Your task to perform on an android device: change the clock style Image 0: 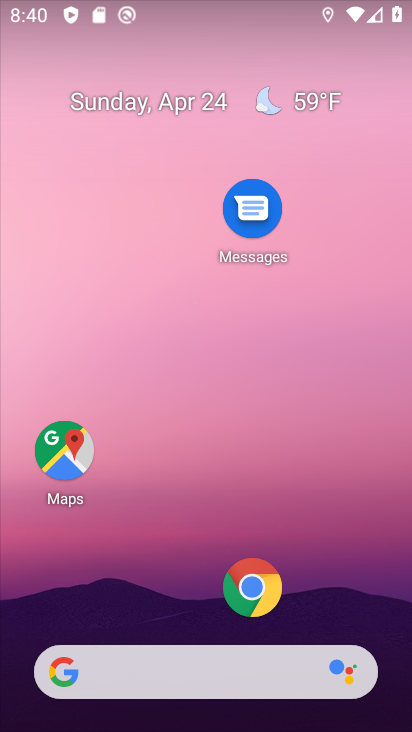
Step 0: drag from (152, 622) to (159, 69)
Your task to perform on an android device: change the clock style Image 1: 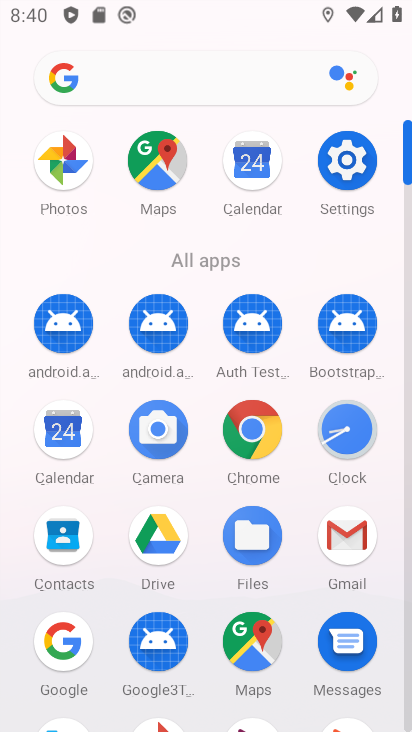
Step 1: click (337, 434)
Your task to perform on an android device: change the clock style Image 2: 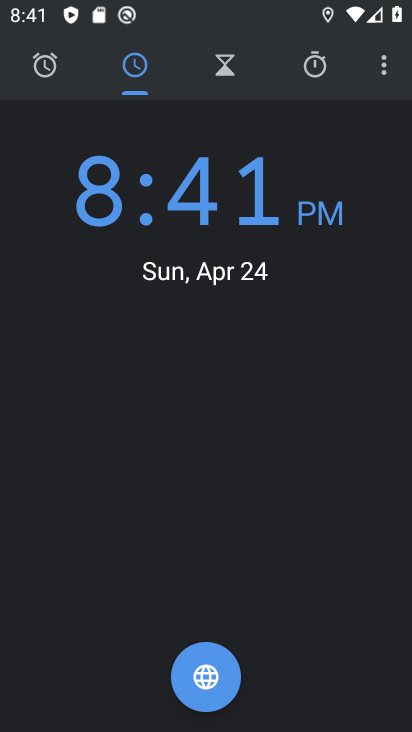
Step 2: click (395, 71)
Your task to perform on an android device: change the clock style Image 3: 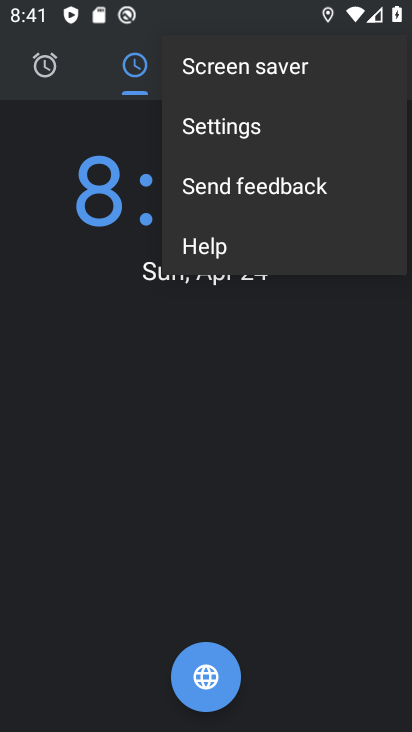
Step 3: click (244, 132)
Your task to perform on an android device: change the clock style Image 4: 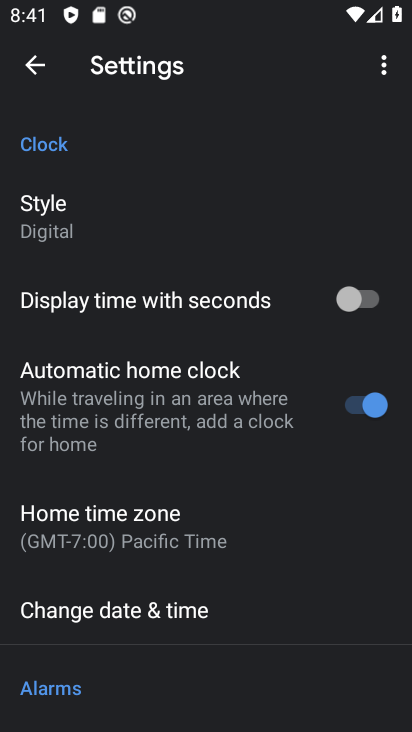
Step 4: click (64, 229)
Your task to perform on an android device: change the clock style Image 5: 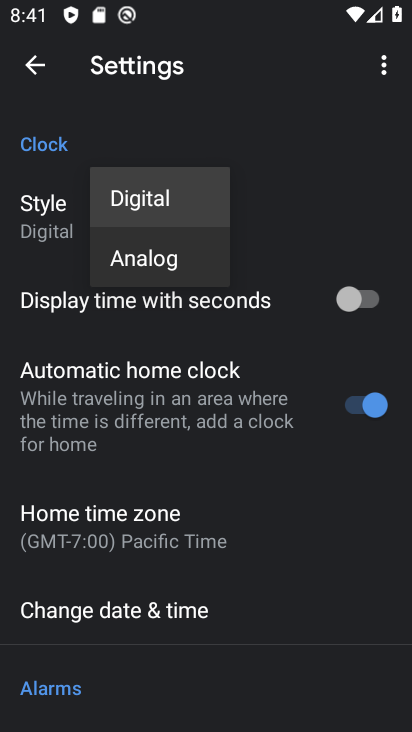
Step 5: click (153, 262)
Your task to perform on an android device: change the clock style Image 6: 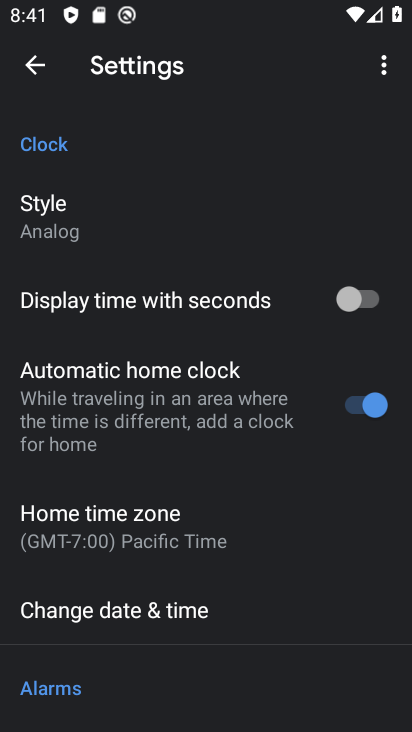
Step 6: task complete